Your task to perform on an android device: Go to internet settings Image 0: 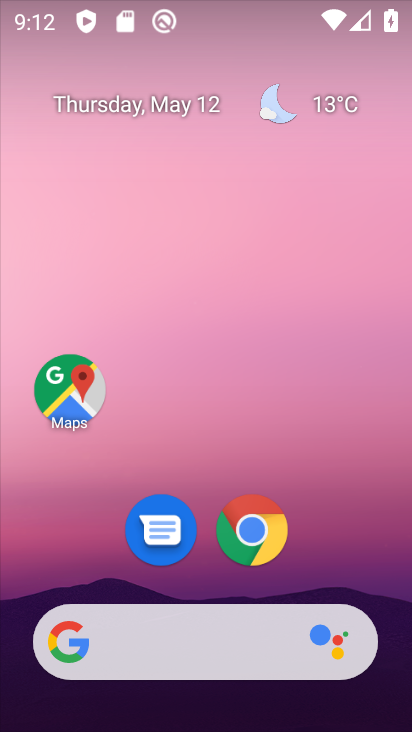
Step 0: drag from (304, 504) to (359, 165)
Your task to perform on an android device: Go to internet settings Image 1: 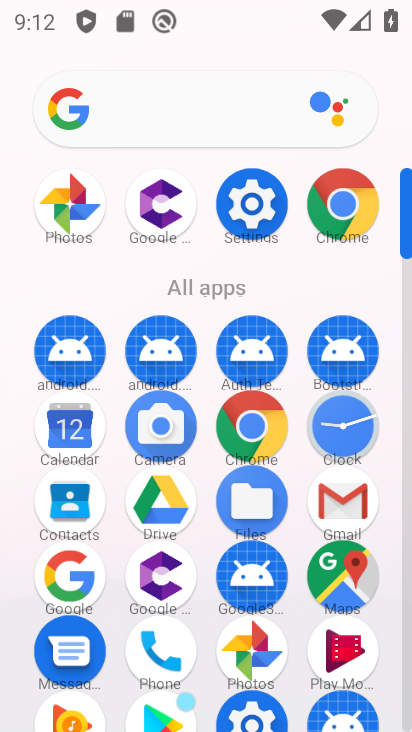
Step 1: click (257, 186)
Your task to perform on an android device: Go to internet settings Image 2: 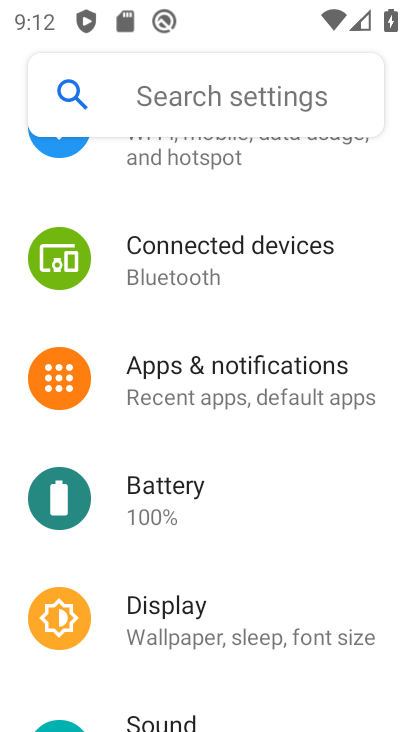
Step 2: drag from (255, 258) to (240, 573)
Your task to perform on an android device: Go to internet settings Image 3: 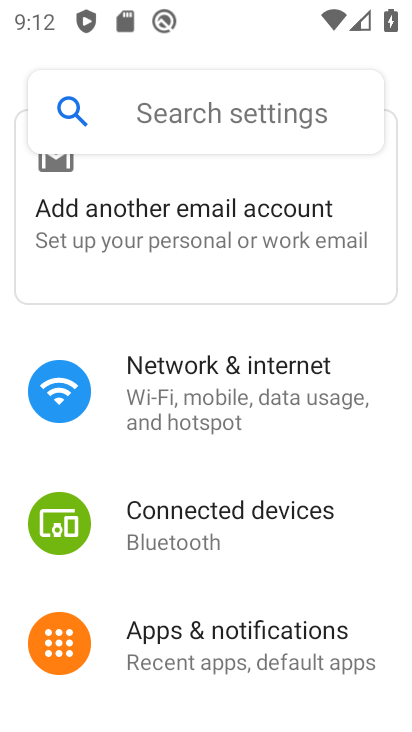
Step 3: click (277, 359)
Your task to perform on an android device: Go to internet settings Image 4: 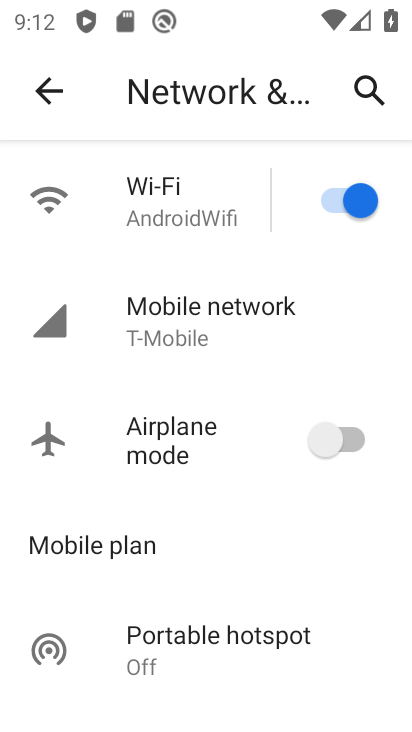
Step 4: task complete